Your task to perform on an android device: open a bookmark in the chrome app Image 0: 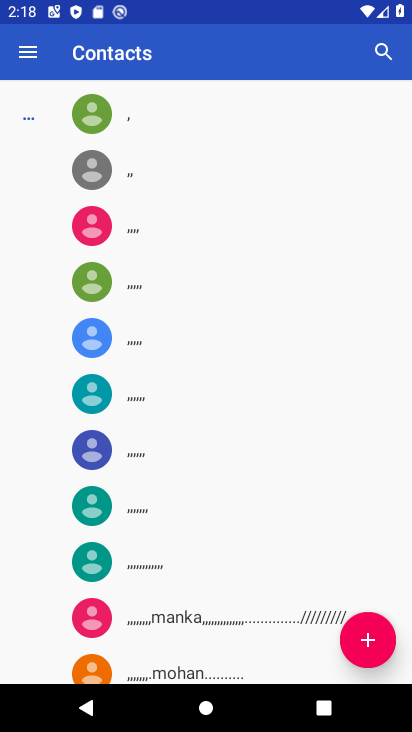
Step 0: press home button
Your task to perform on an android device: open a bookmark in the chrome app Image 1: 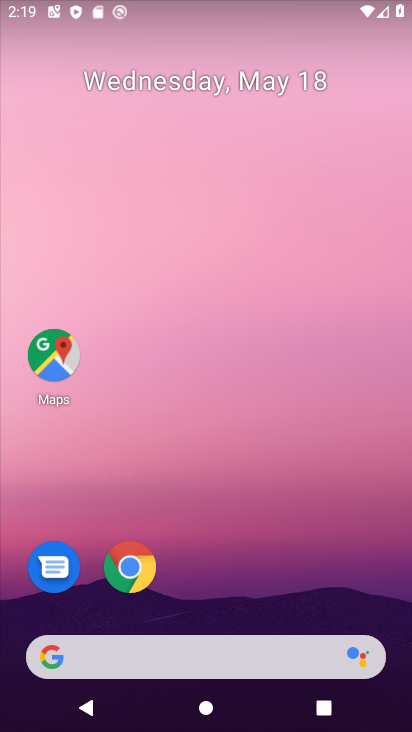
Step 1: click (130, 562)
Your task to perform on an android device: open a bookmark in the chrome app Image 2: 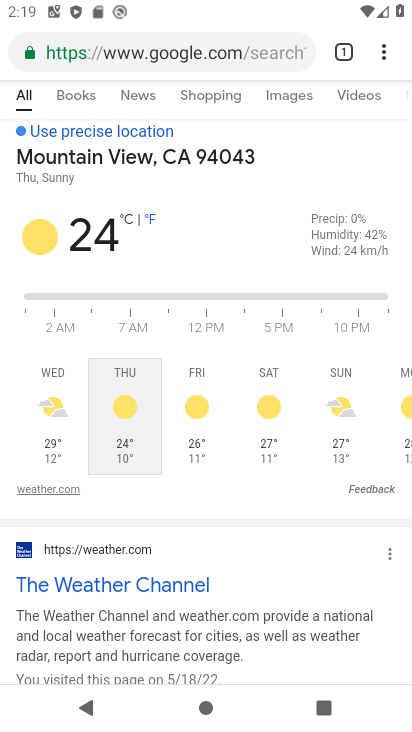
Step 2: drag from (386, 44) to (251, 189)
Your task to perform on an android device: open a bookmark in the chrome app Image 3: 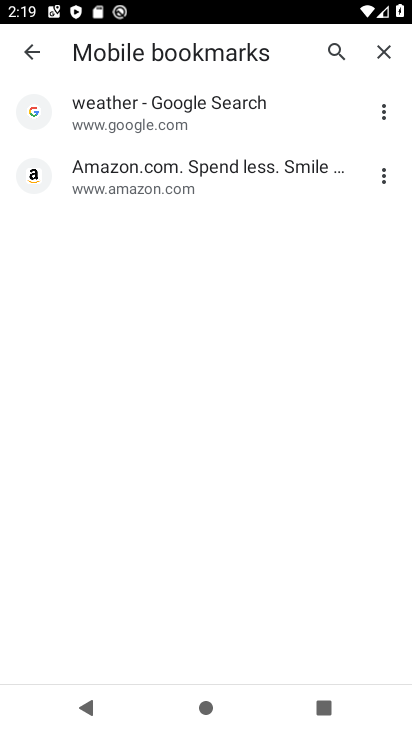
Step 3: click (188, 115)
Your task to perform on an android device: open a bookmark in the chrome app Image 4: 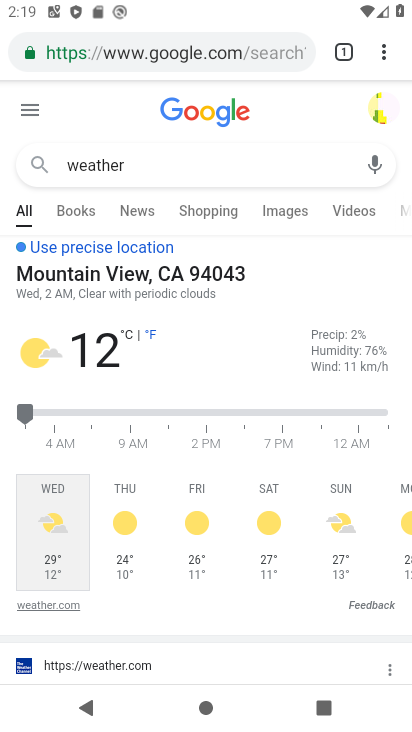
Step 4: task complete